Your task to perform on an android device: star an email in the gmail app Image 0: 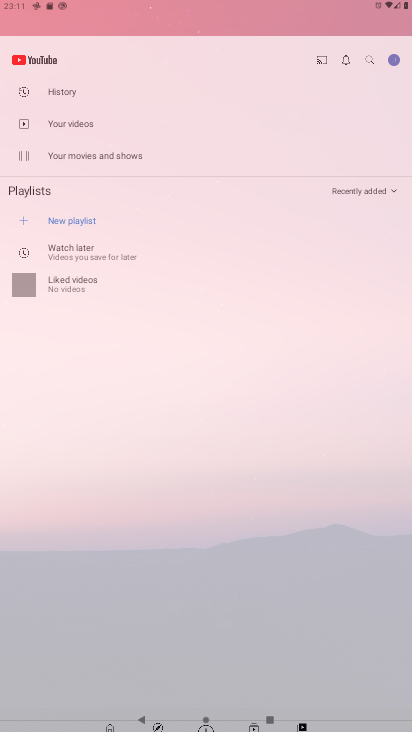
Step 0: click (66, 390)
Your task to perform on an android device: star an email in the gmail app Image 1: 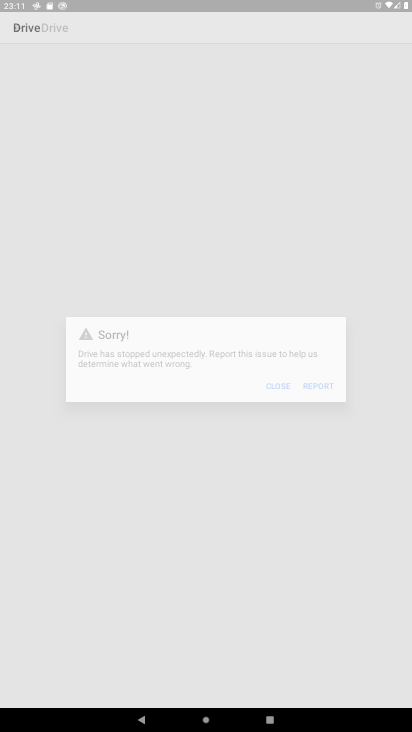
Step 1: click (66, 390)
Your task to perform on an android device: star an email in the gmail app Image 2: 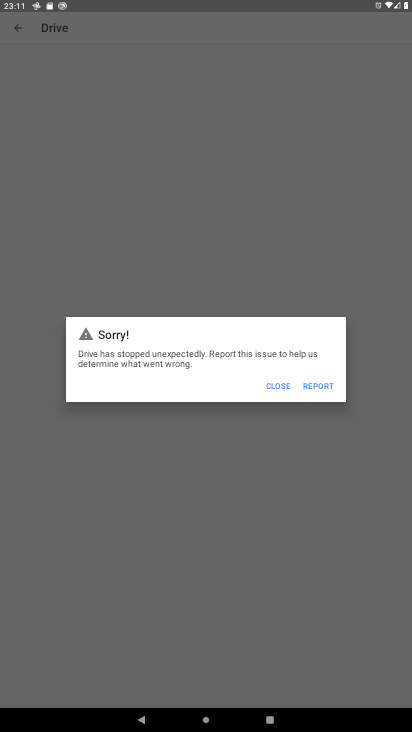
Step 2: click (66, 390)
Your task to perform on an android device: star an email in the gmail app Image 3: 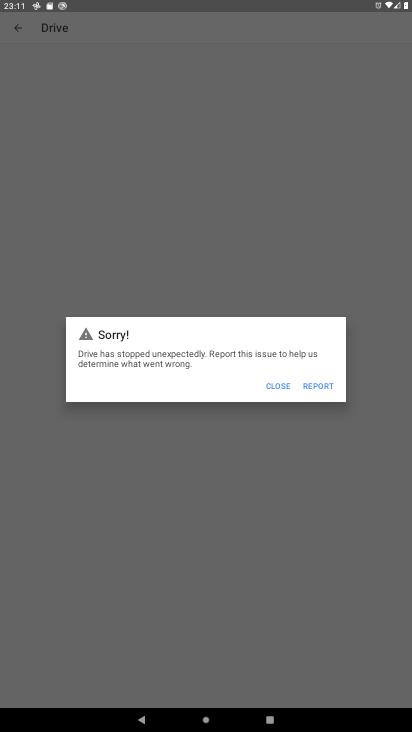
Step 3: press home button
Your task to perform on an android device: star an email in the gmail app Image 4: 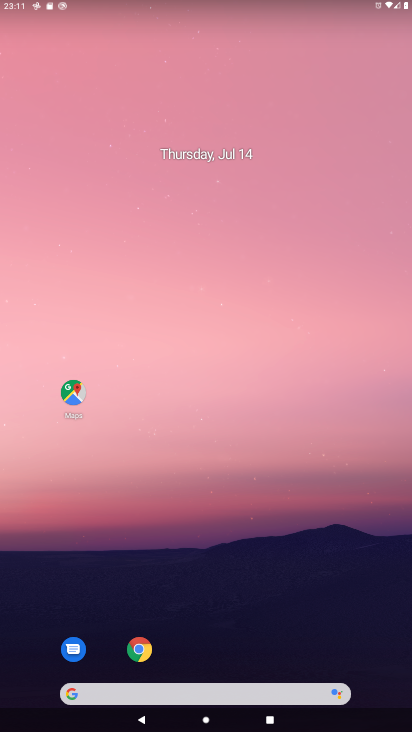
Step 4: drag from (239, 723) to (285, 166)
Your task to perform on an android device: star an email in the gmail app Image 5: 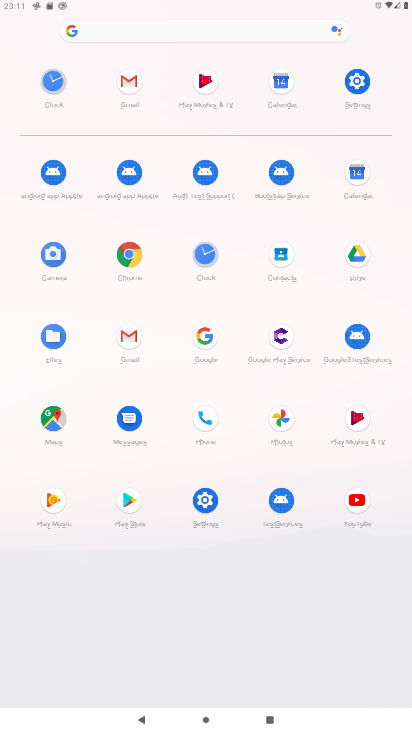
Step 5: click (126, 87)
Your task to perform on an android device: star an email in the gmail app Image 6: 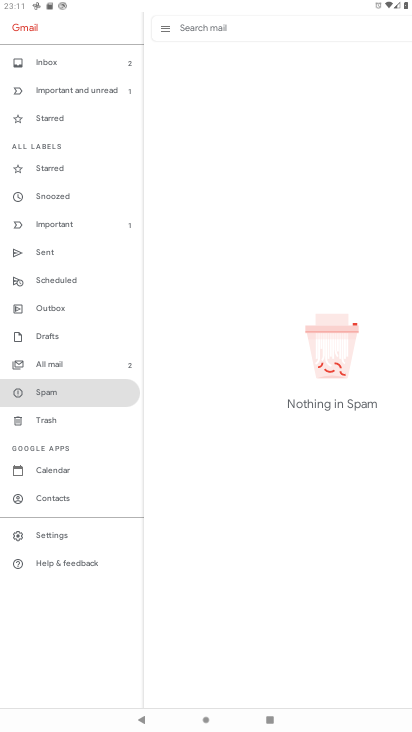
Step 6: click (68, 361)
Your task to perform on an android device: star an email in the gmail app Image 7: 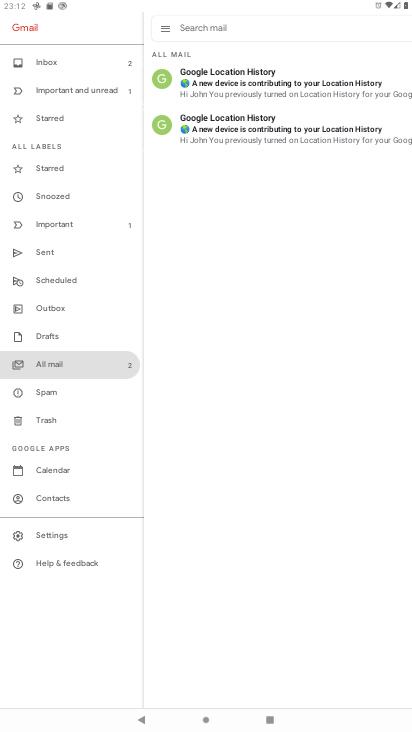
Step 7: click (330, 87)
Your task to perform on an android device: star an email in the gmail app Image 8: 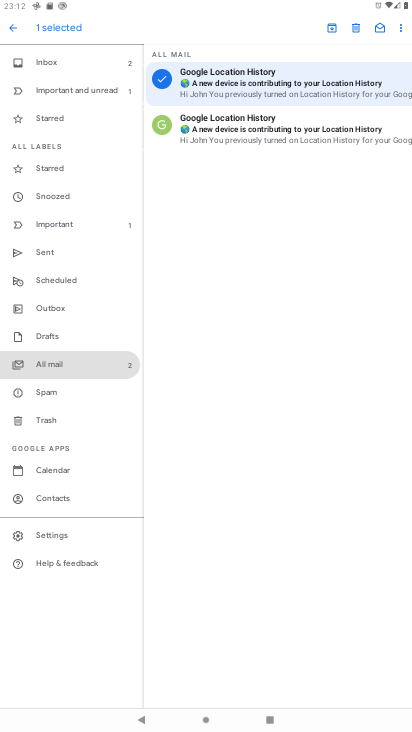
Step 8: click (402, 30)
Your task to perform on an android device: star an email in the gmail app Image 9: 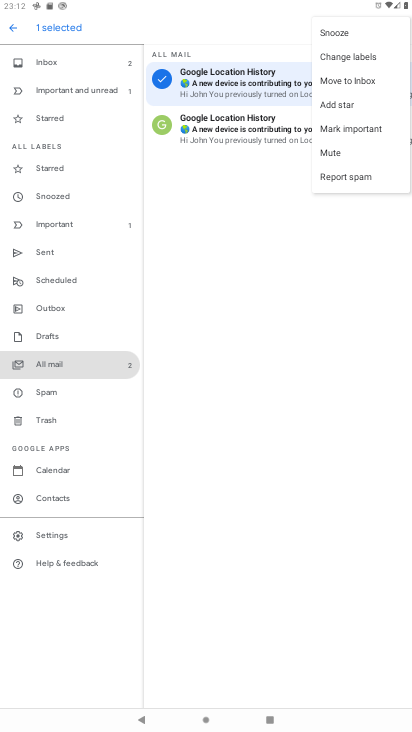
Step 9: click (348, 106)
Your task to perform on an android device: star an email in the gmail app Image 10: 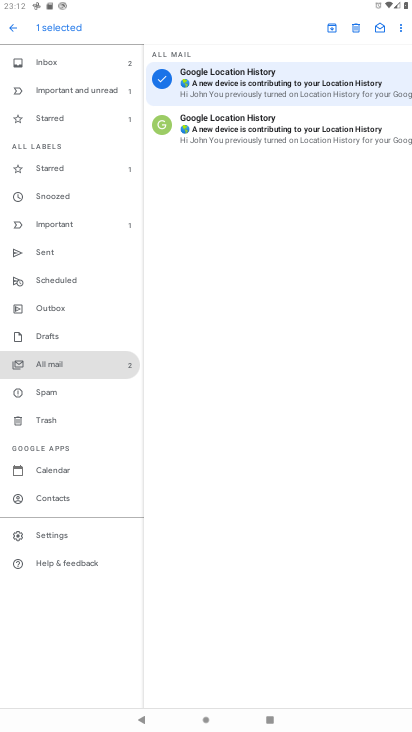
Step 10: task complete